Your task to perform on an android device: toggle improve location accuracy Image 0: 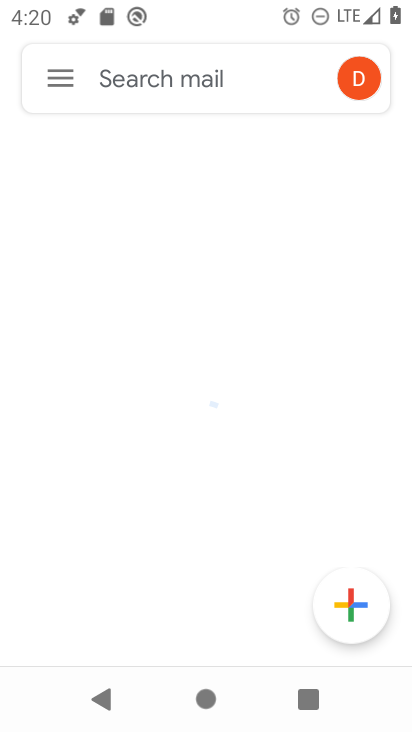
Step 0: drag from (196, 623) to (220, 471)
Your task to perform on an android device: toggle improve location accuracy Image 1: 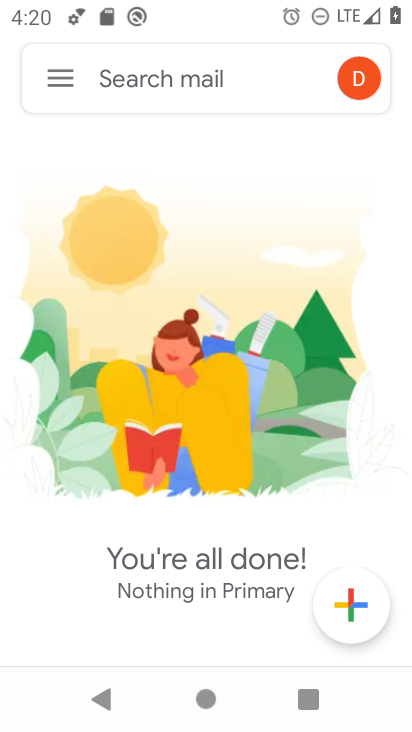
Step 1: press home button
Your task to perform on an android device: toggle improve location accuracy Image 2: 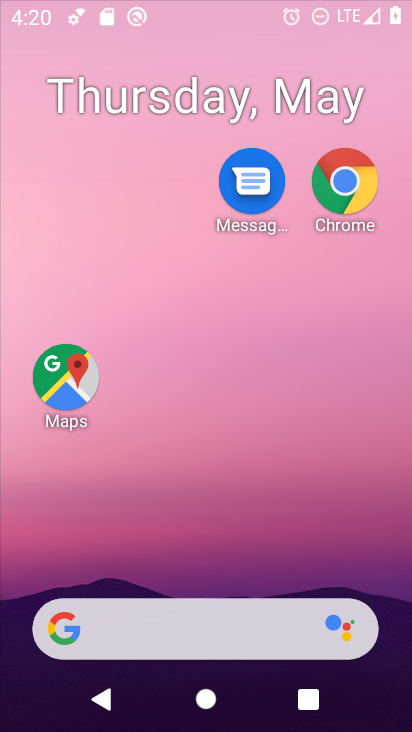
Step 2: drag from (201, 600) to (381, 0)
Your task to perform on an android device: toggle improve location accuracy Image 3: 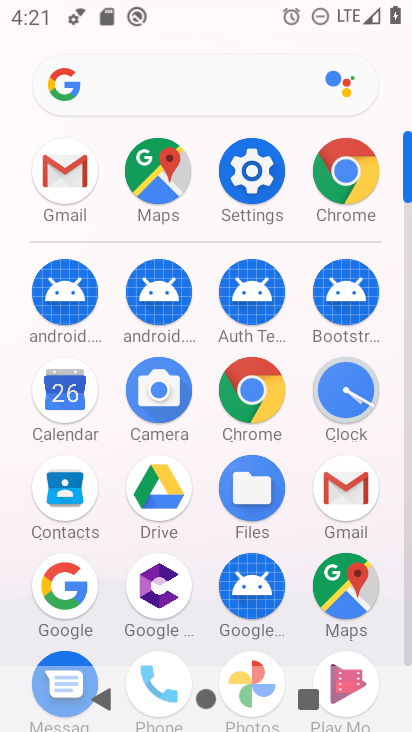
Step 3: click (262, 170)
Your task to perform on an android device: toggle improve location accuracy Image 4: 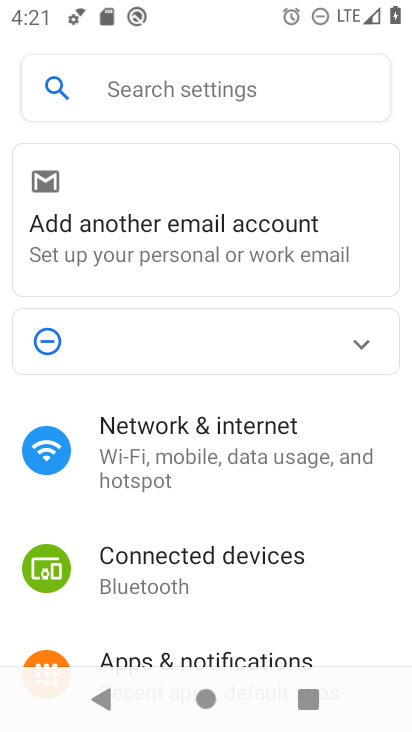
Step 4: drag from (321, 611) to (347, 93)
Your task to perform on an android device: toggle improve location accuracy Image 5: 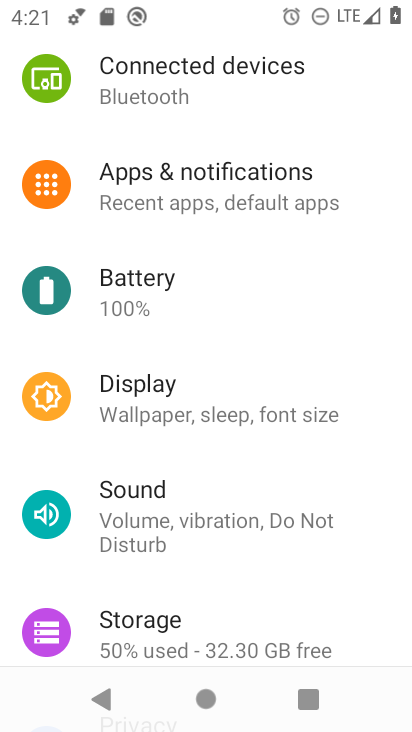
Step 5: drag from (300, 649) to (326, 67)
Your task to perform on an android device: toggle improve location accuracy Image 6: 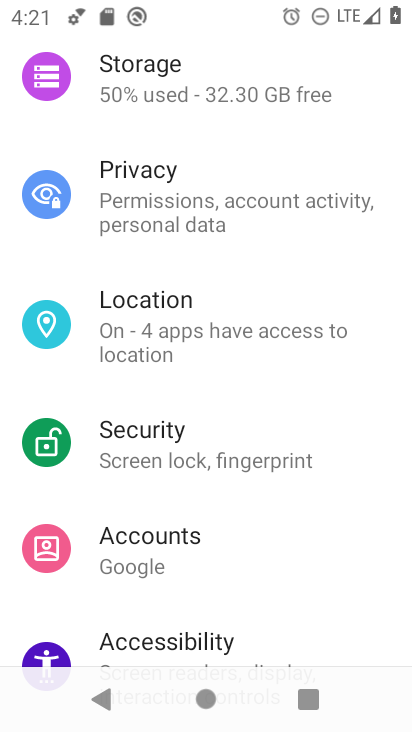
Step 6: click (245, 338)
Your task to perform on an android device: toggle improve location accuracy Image 7: 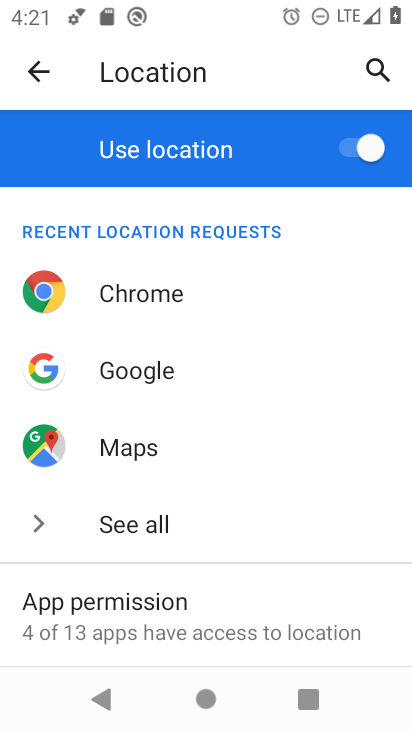
Step 7: drag from (242, 630) to (233, 83)
Your task to perform on an android device: toggle improve location accuracy Image 8: 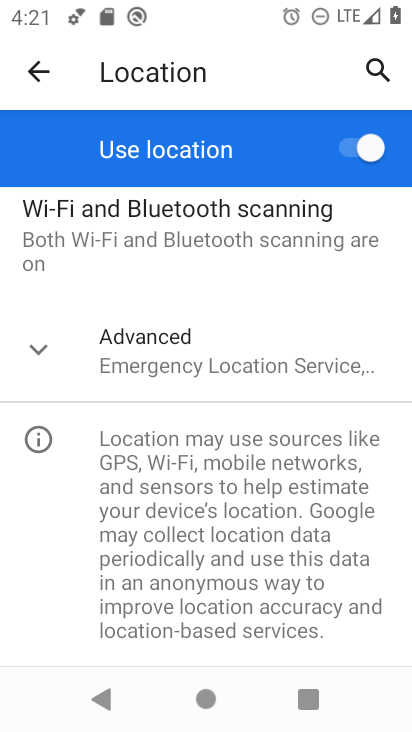
Step 8: click (271, 357)
Your task to perform on an android device: toggle improve location accuracy Image 9: 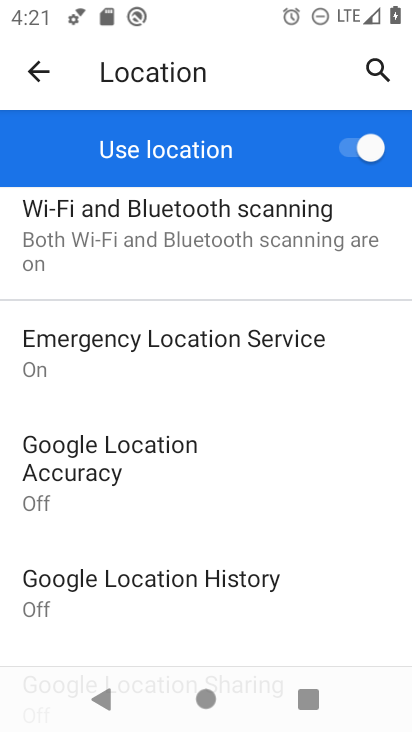
Step 9: click (129, 467)
Your task to perform on an android device: toggle improve location accuracy Image 10: 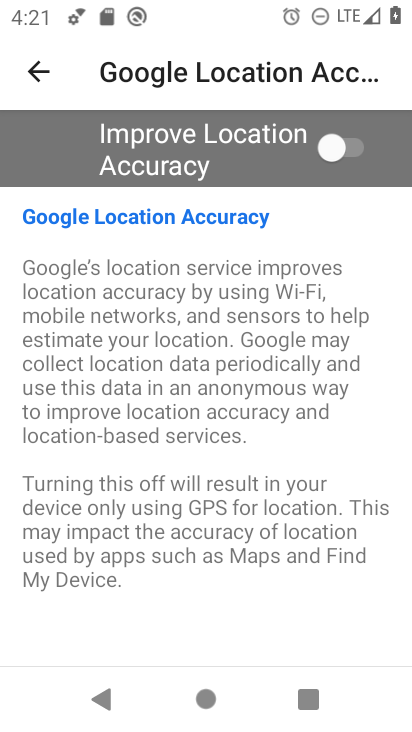
Step 10: click (354, 143)
Your task to perform on an android device: toggle improve location accuracy Image 11: 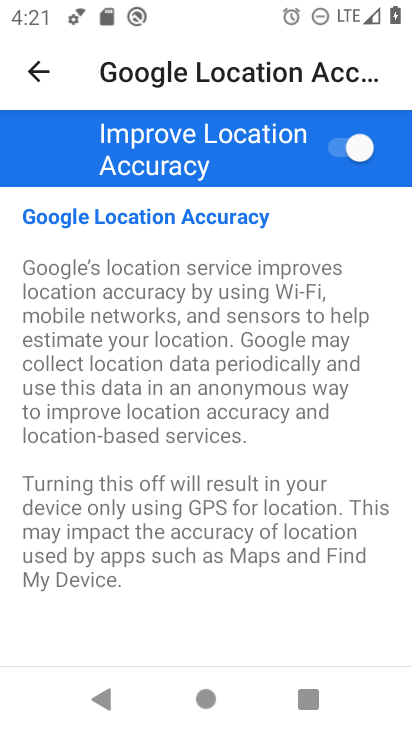
Step 11: task complete